Your task to perform on an android device: change the clock display to show seconds Image 0: 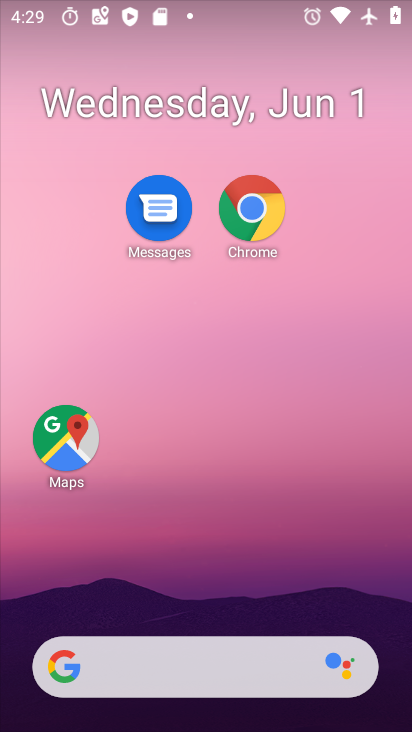
Step 0: drag from (198, 613) to (173, 248)
Your task to perform on an android device: change the clock display to show seconds Image 1: 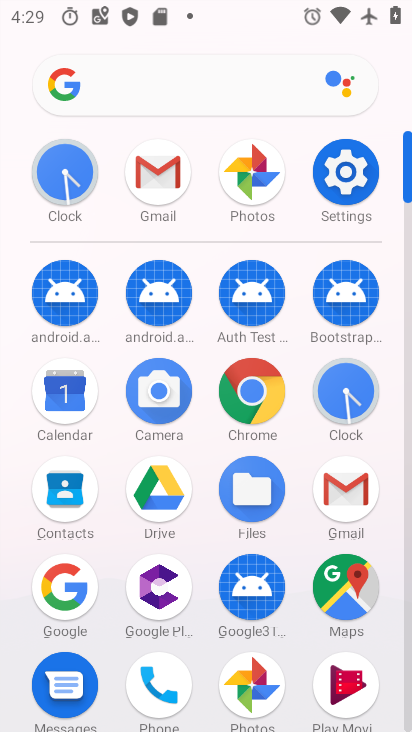
Step 1: click (326, 395)
Your task to perform on an android device: change the clock display to show seconds Image 2: 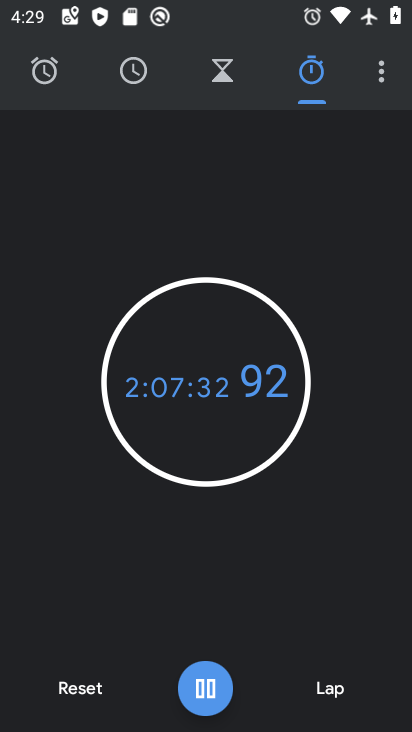
Step 2: click (376, 73)
Your task to perform on an android device: change the clock display to show seconds Image 3: 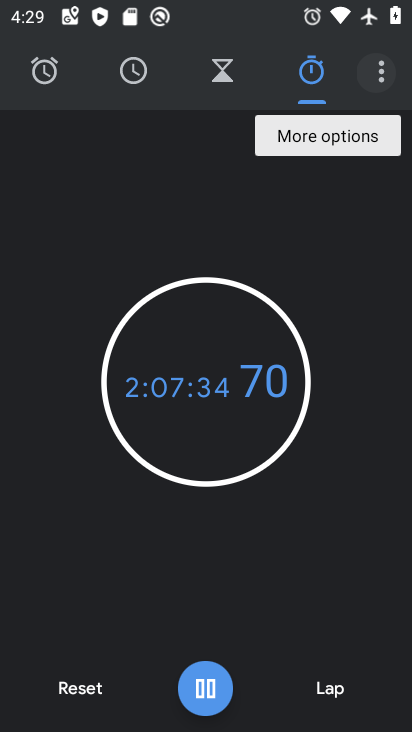
Step 3: click (373, 75)
Your task to perform on an android device: change the clock display to show seconds Image 4: 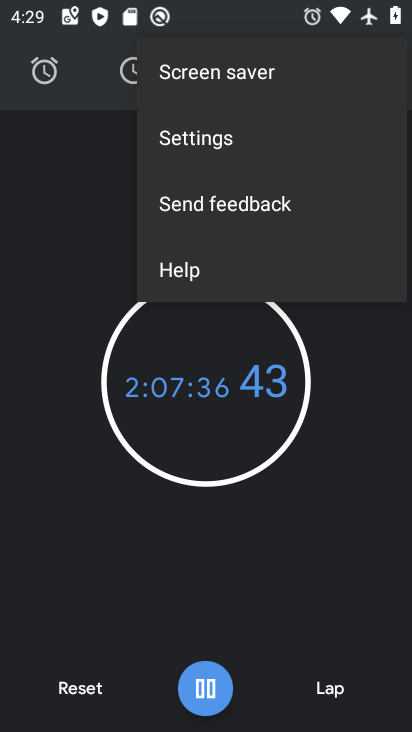
Step 4: click (284, 136)
Your task to perform on an android device: change the clock display to show seconds Image 5: 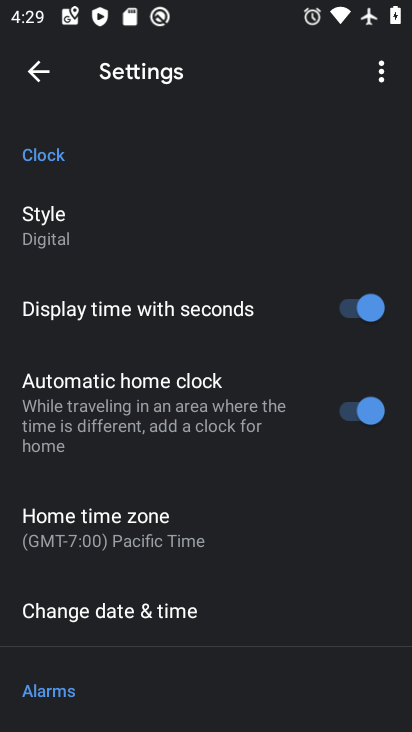
Step 5: task complete